Your task to perform on an android device: set an alarm Image 0: 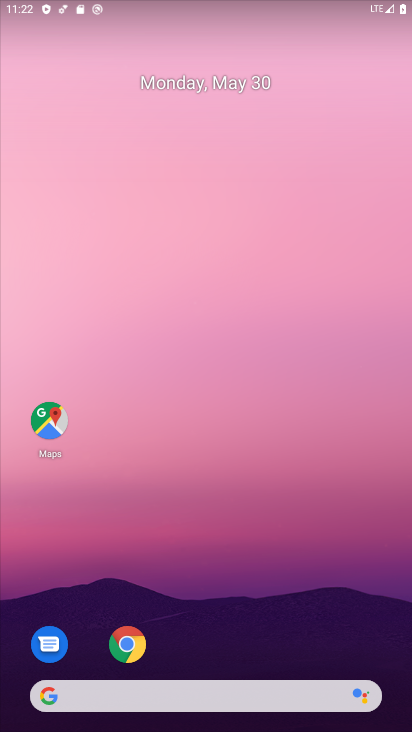
Step 0: drag from (248, 678) to (148, 28)
Your task to perform on an android device: set an alarm Image 1: 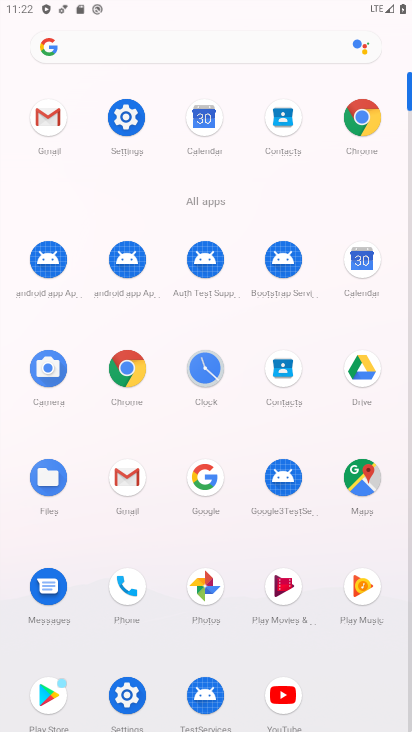
Step 1: click (216, 364)
Your task to perform on an android device: set an alarm Image 2: 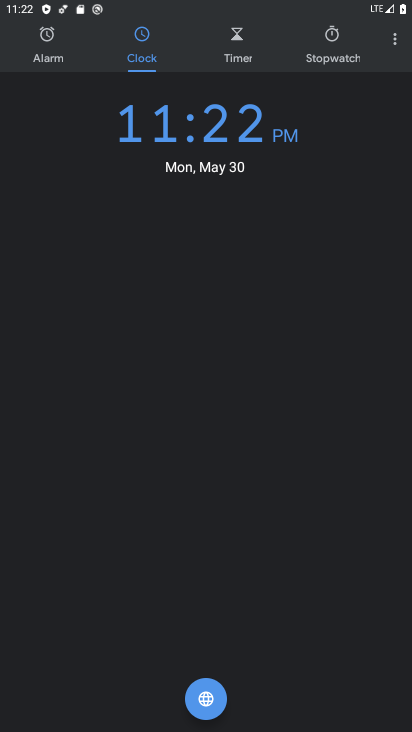
Step 2: click (52, 55)
Your task to perform on an android device: set an alarm Image 3: 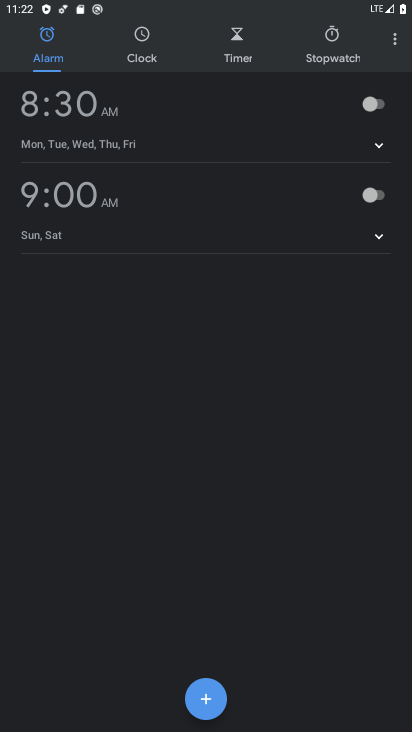
Step 3: click (201, 691)
Your task to perform on an android device: set an alarm Image 4: 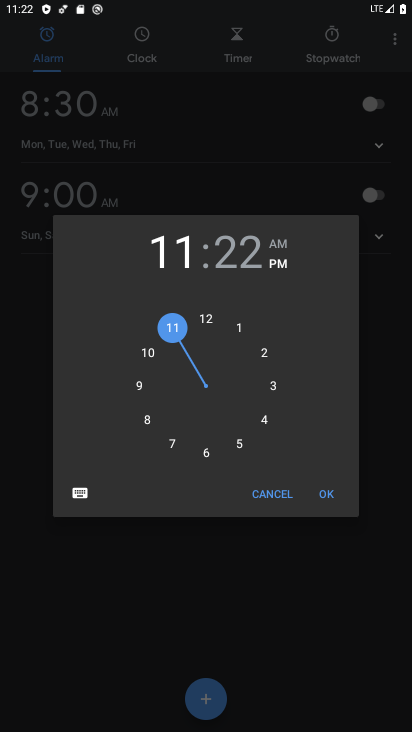
Step 4: click (327, 481)
Your task to perform on an android device: set an alarm Image 5: 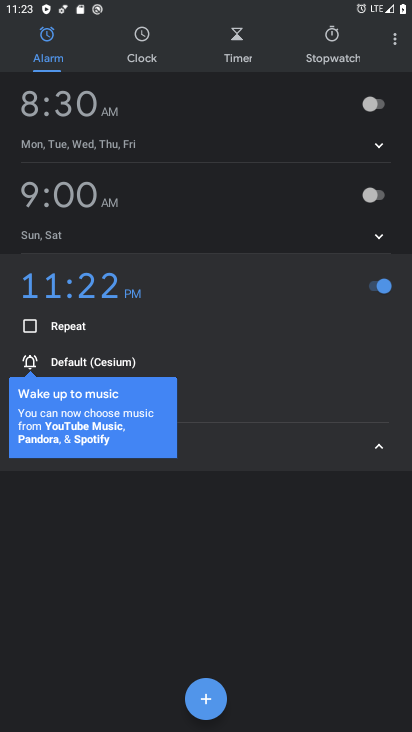
Step 5: task complete